Your task to perform on an android device: turn notification dots on Image 0: 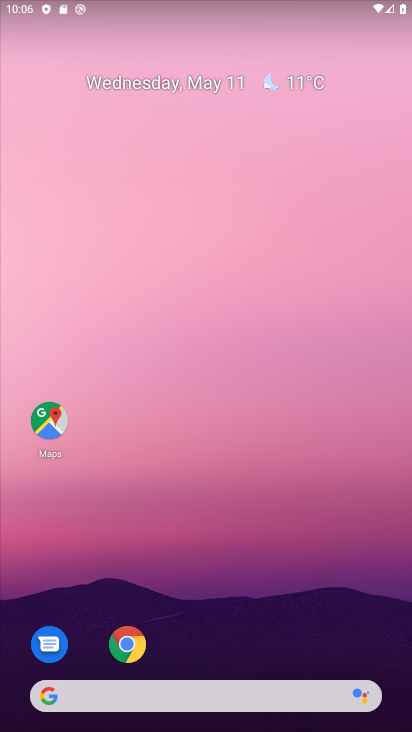
Step 0: drag from (316, 392) to (306, 1)
Your task to perform on an android device: turn notification dots on Image 1: 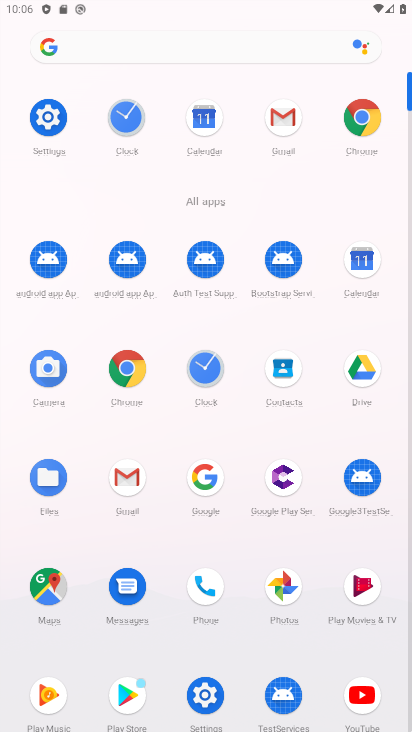
Step 1: click (54, 111)
Your task to perform on an android device: turn notification dots on Image 2: 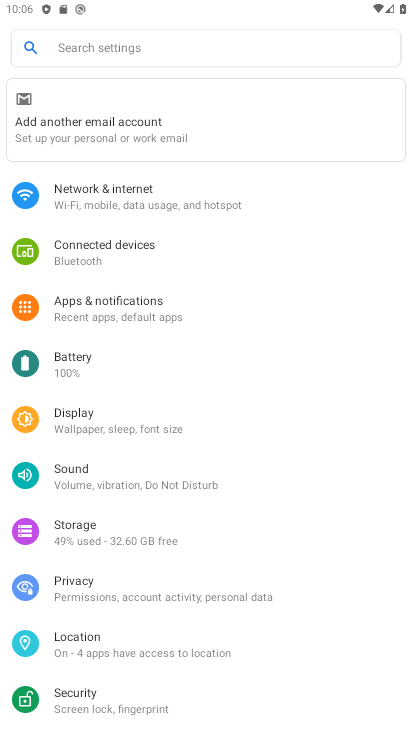
Step 2: click (131, 312)
Your task to perform on an android device: turn notification dots on Image 3: 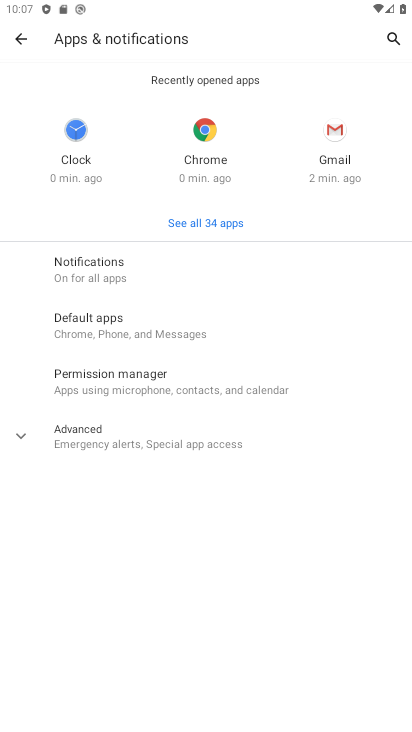
Step 3: click (100, 282)
Your task to perform on an android device: turn notification dots on Image 4: 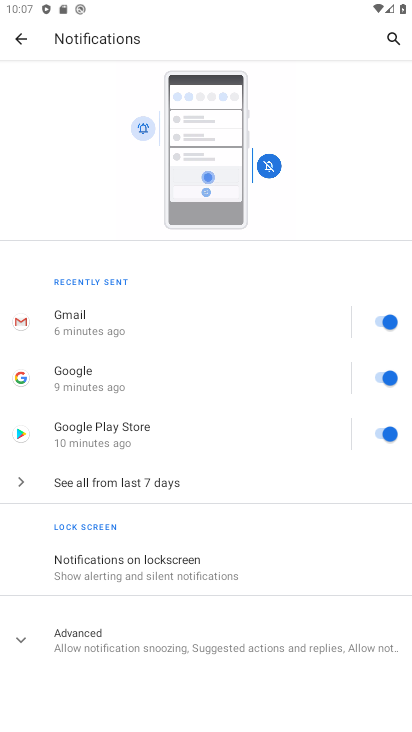
Step 4: click (29, 642)
Your task to perform on an android device: turn notification dots on Image 5: 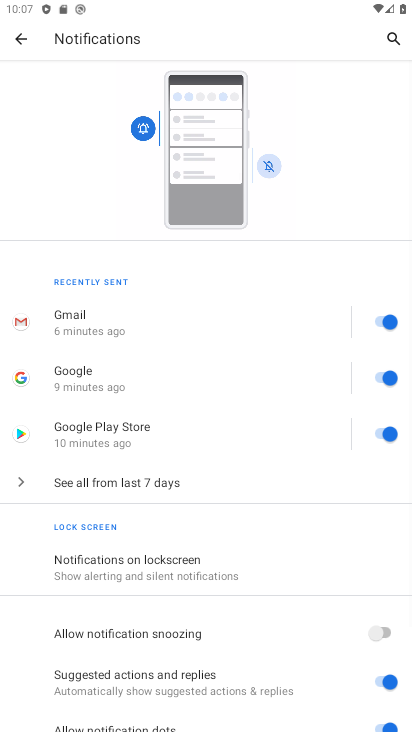
Step 5: task complete